Your task to perform on an android device: change the clock display to show seconds Image 0: 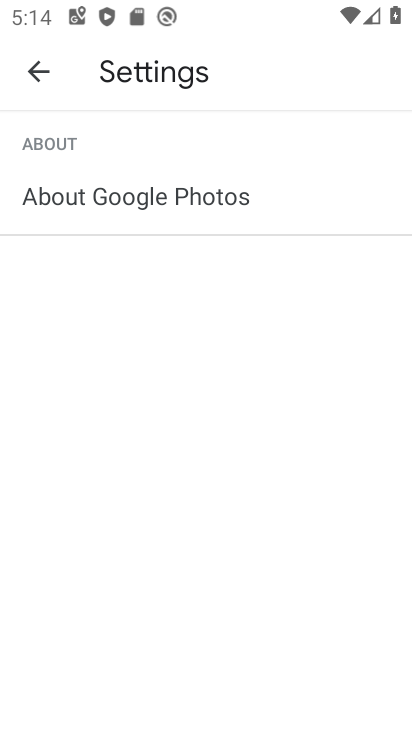
Step 0: press back button
Your task to perform on an android device: change the clock display to show seconds Image 1: 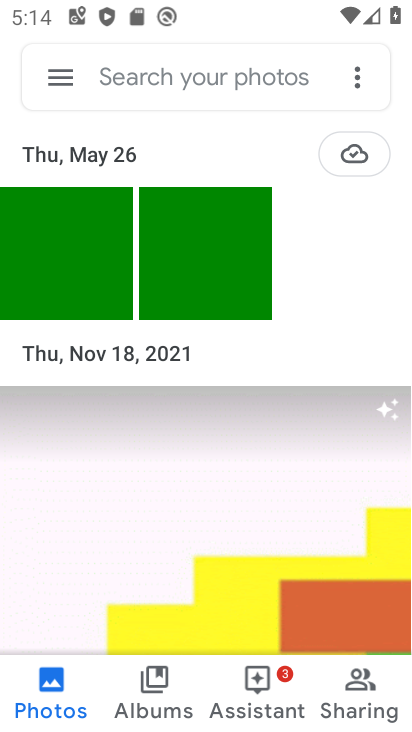
Step 1: press back button
Your task to perform on an android device: change the clock display to show seconds Image 2: 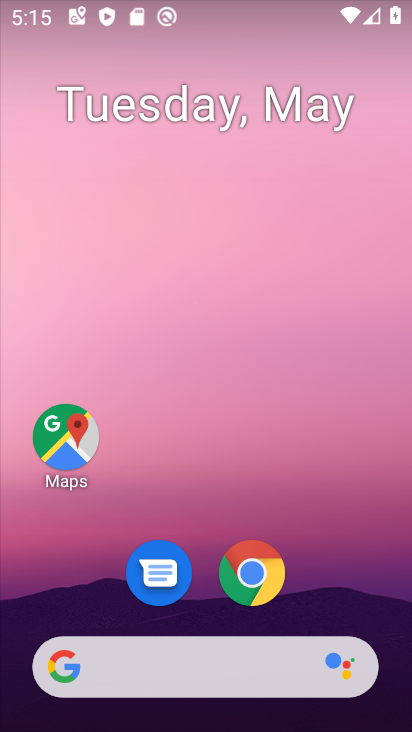
Step 2: drag from (215, 505) to (264, 96)
Your task to perform on an android device: change the clock display to show seconds Image 3: 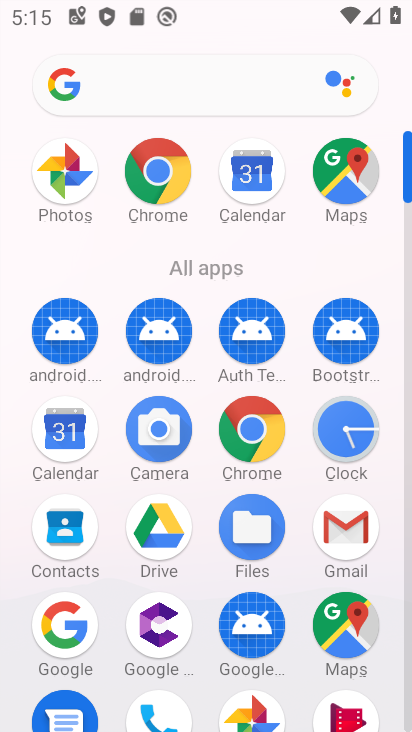
Step 3: click (352, 421)
Your task to perform on an android device: change the clock display to show seconds Image 4: 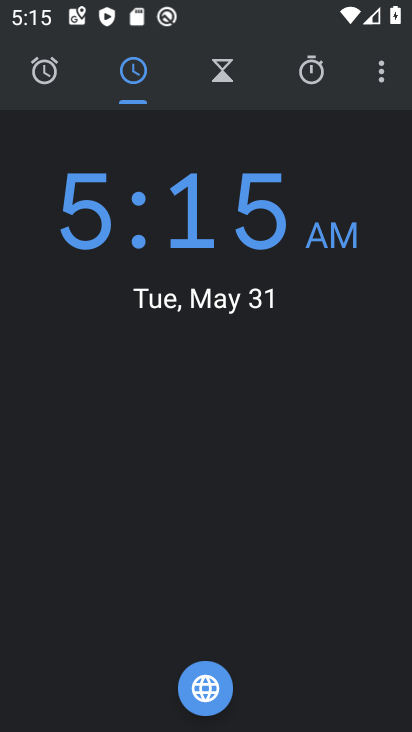
Step 4: click (372, 62)
Your task to perform on an android device: change the clock display to show seconds Image 5: 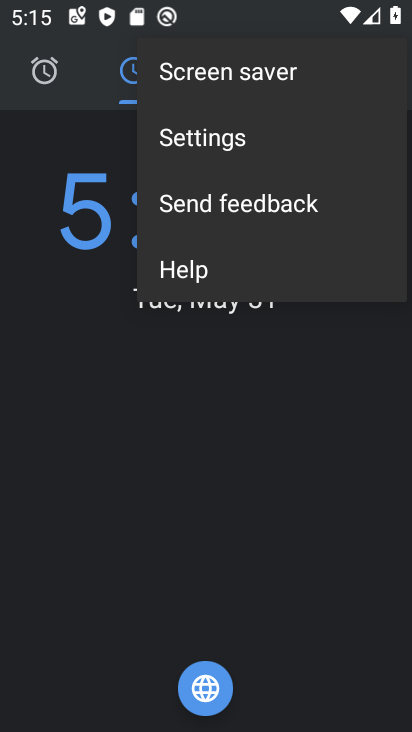
Step 5: click (232, 148)
Your task to perform on an android device: change the clock display to show seconds Image 6: 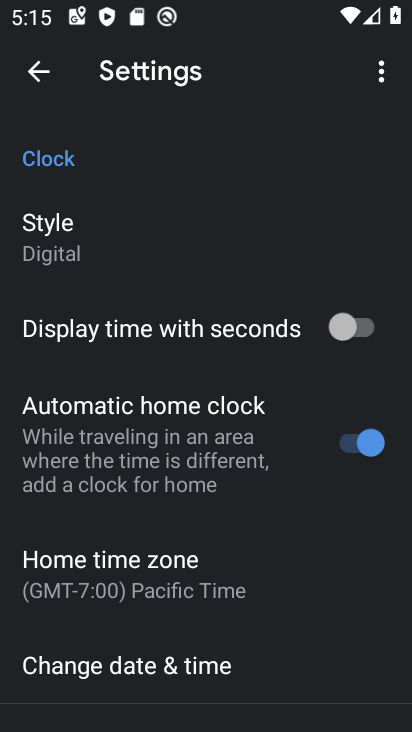
Step 6: click (344, 321)
Your task to perform on an android device: change the clock display to show seconds Image 7: 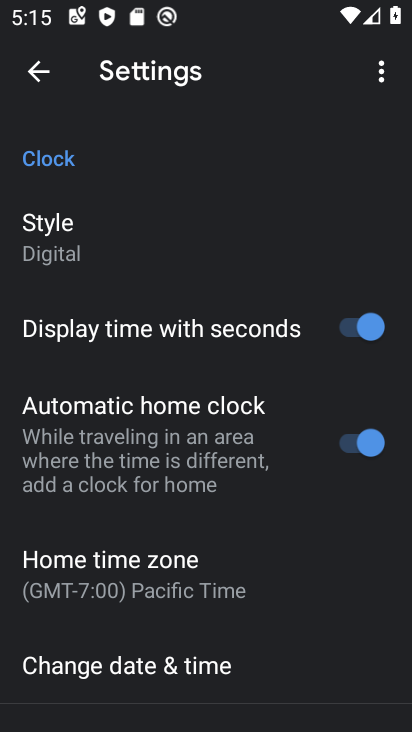
Step 7: task complete